Your task to perform on an android device: turn on airplane mode Image 0: 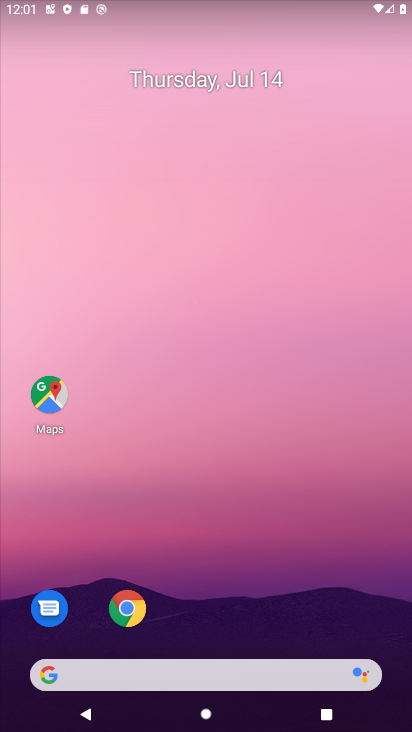
Step 0: drag from (255, 708) to (402, 360)
Your task to perform on an android device: turn on airplane mode Image 1: 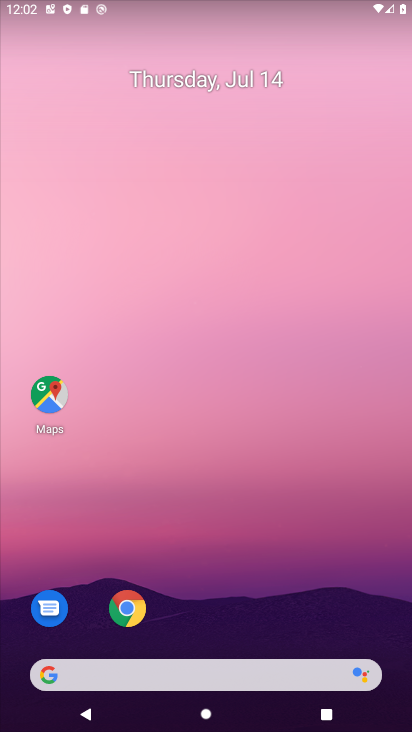
Step 1: drag from (273, 641) to (266, 21)
Your task to perform on an android device: turn on airplane mode Image 2: 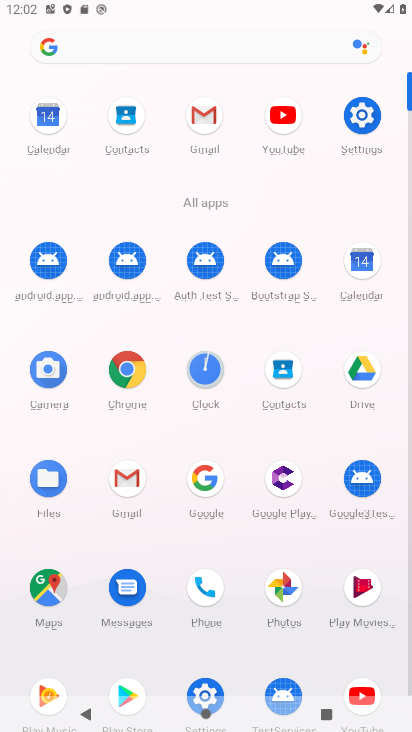
Step 2: click (364, 108)
Your task to perform on an android device: turn on airplane mode Image 3: 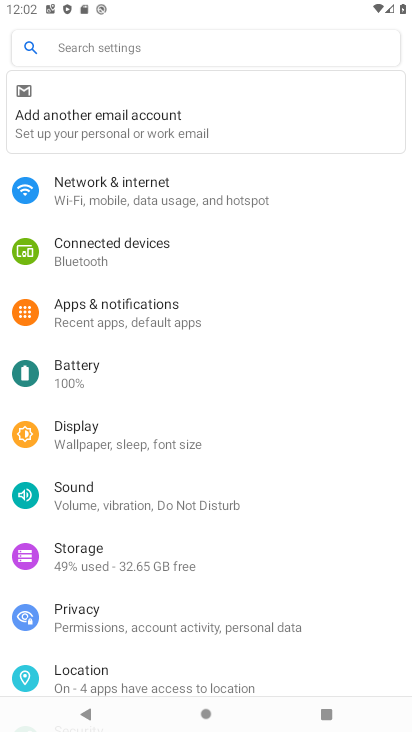
Step 3: click (269, 187)
Your task to perform on an android device: turn on airplane mode Image 4: 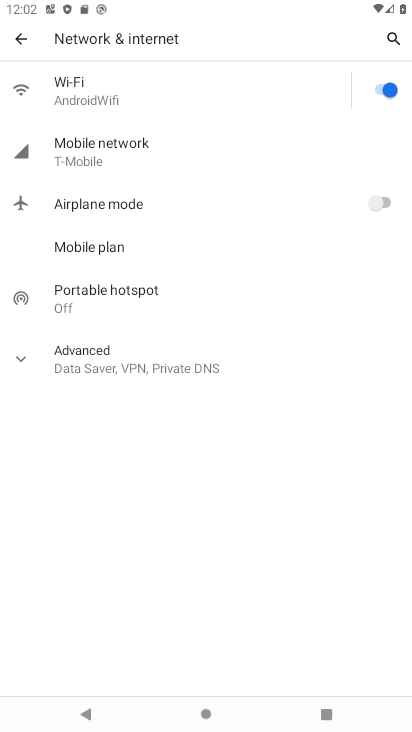
Step 4: click (376, 203)
Your task to perform on an android device: turn on airplane mode Image 5: 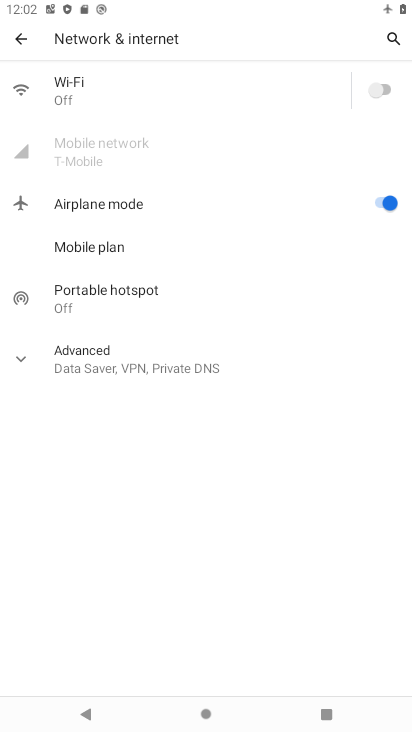
Step 5: task complete